Your task to perform on an android device: add a label to a message in the gmail app Image 0: 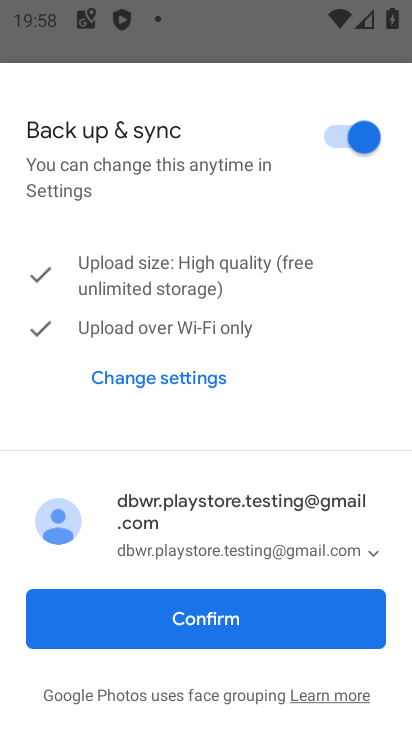
Step 0: press home button
Your task to perform on an android device: add a label to a message in the gmail app Image 1: 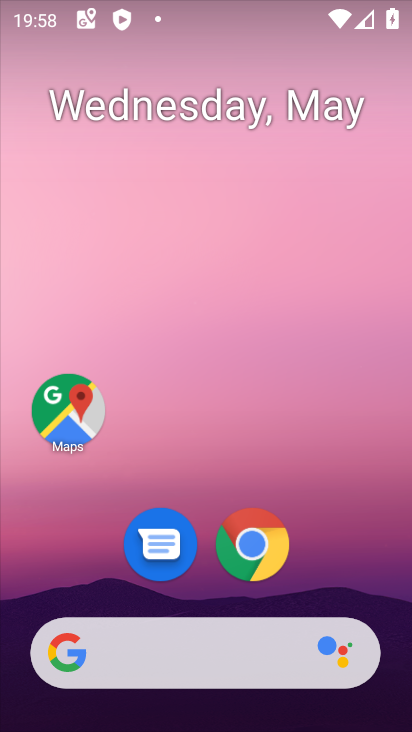
Step 1: drag from (203, 598) to (273, 116)
Your task to perform on an android device: add a label to a message in the gmail app Image 2: 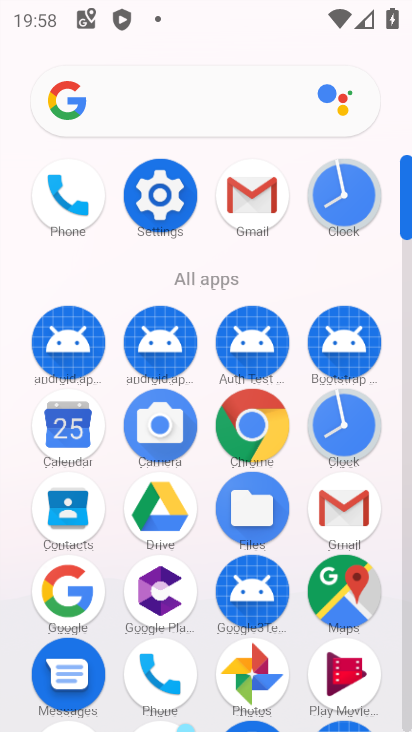
Step 2: click (326, 490)
Your task to perform on an android device: add a label to a message in the gmail app Image 3: 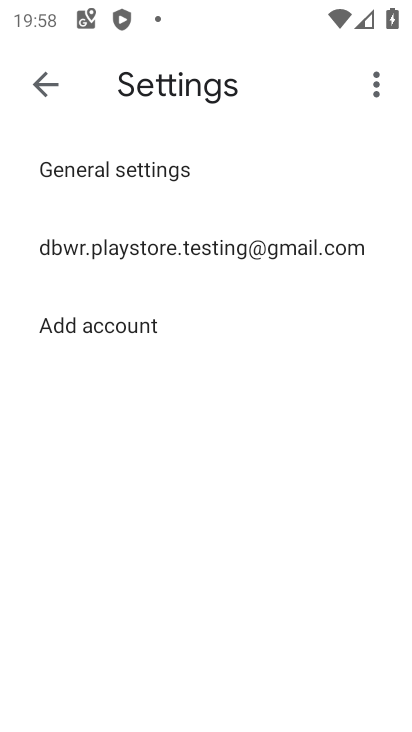
Step 3: click (47, 91)
Your task to perform on an android device: add a label to a message in the gmail app Image 4: 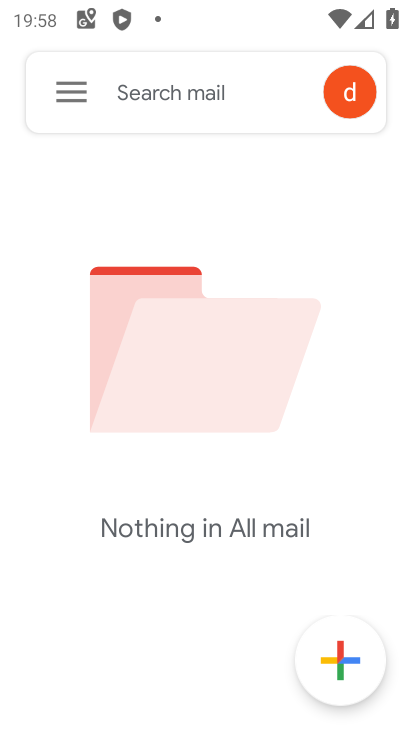
Step 4: task complete